Your task to perform on an android device: turn off location history Image 0: 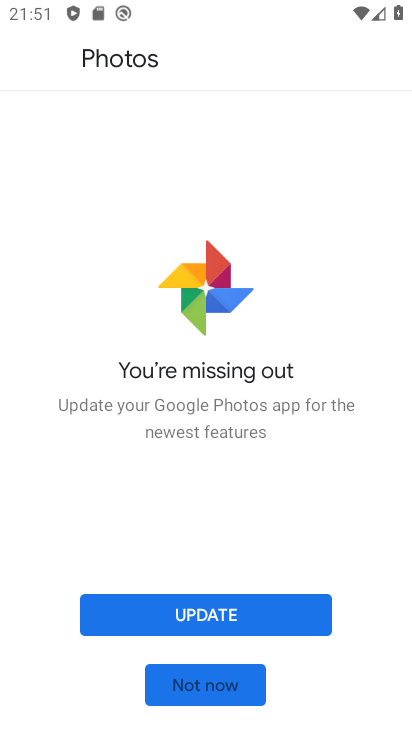
Step 0: press home button
Your task to perform on an android device: turn off location history Image 1: 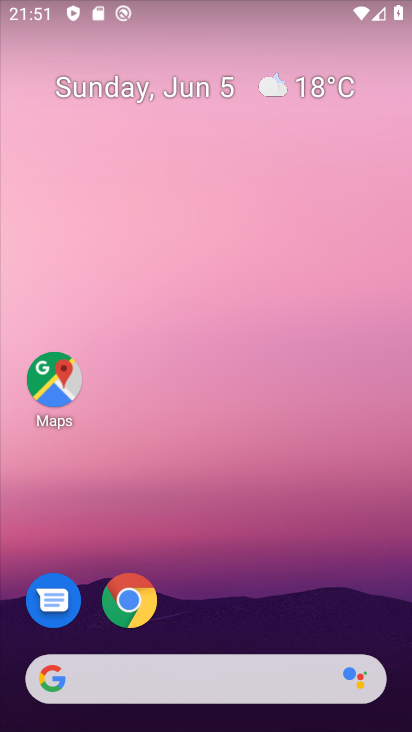
Step 1: drag from (296, 595) to (251, 128)
Your task to perform on an android device: turn off location history Image 2: 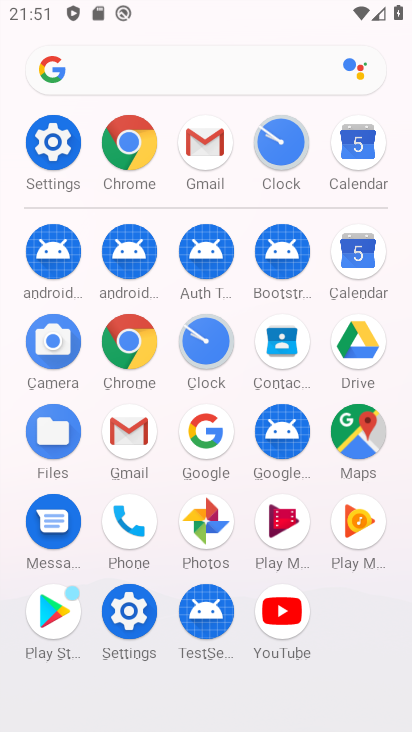
Step 2: click (54, 136)
Your task to perform on an android device: turn off location history Image 3: 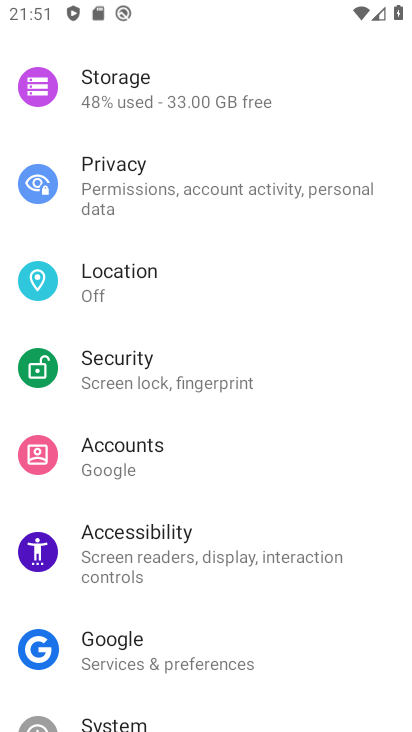
Step 3: click (131, 308)
Your task to perform on an android device: turn off location history Image 4: 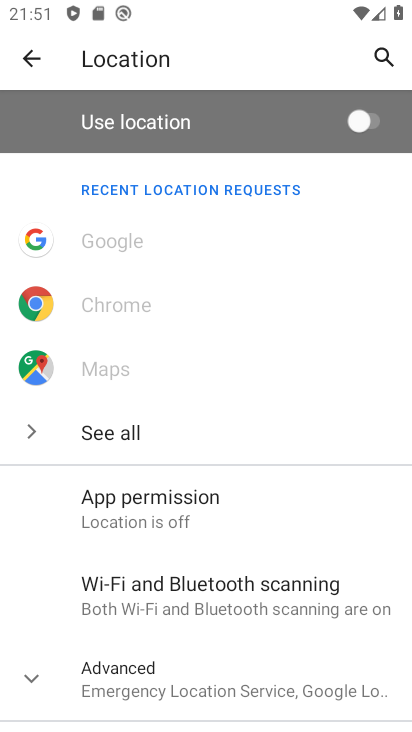
Step 4: click (134, 670)
Your task to perform on an android device: turn off location history Image 5: 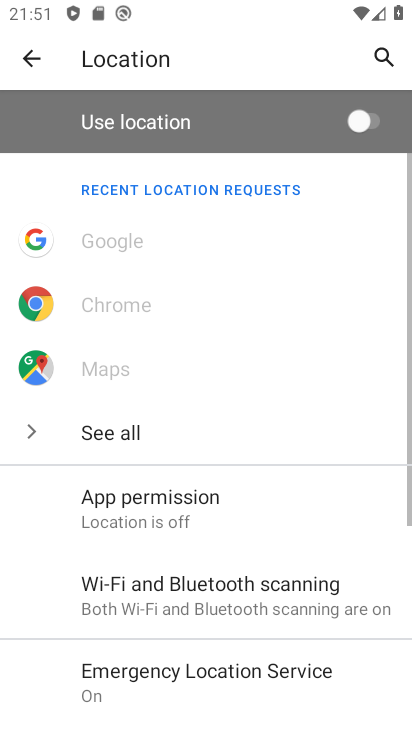
Step 5: drag from (287, 690) to (258, 181)
Your task to perform on an android device: turn off location history Image 6: 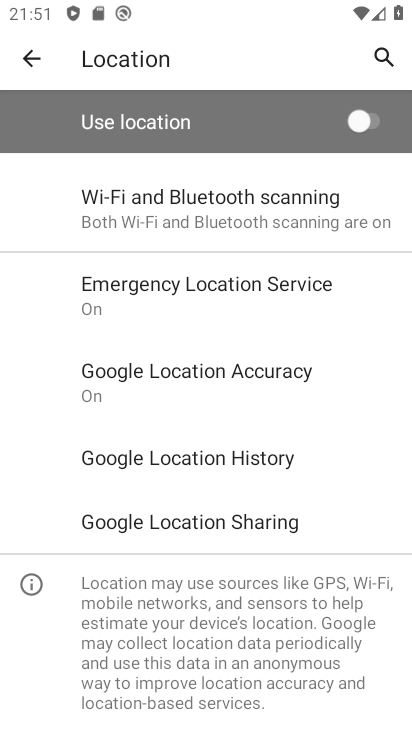
Step 6: click (208, 474)
Your task to perform on an android device: turn off location history Image 7: 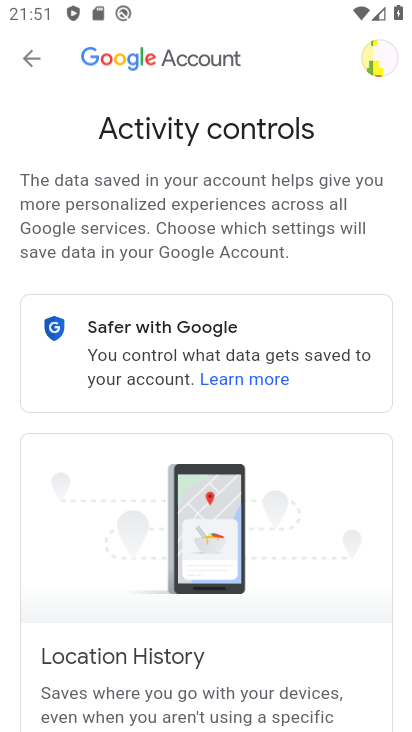
Step 7: drag from (284, 520) to (263, 162)
Your task to perform on an android device: turn off location history Image 8: 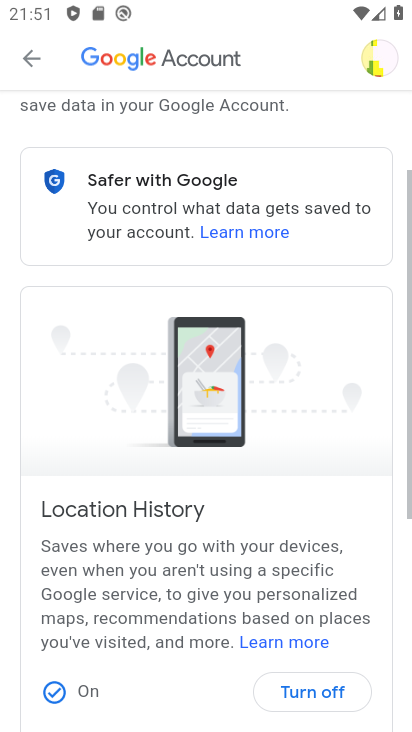
Step 8: click (259, 147)
Your task to perform on an android device: turn off location history Image 9: 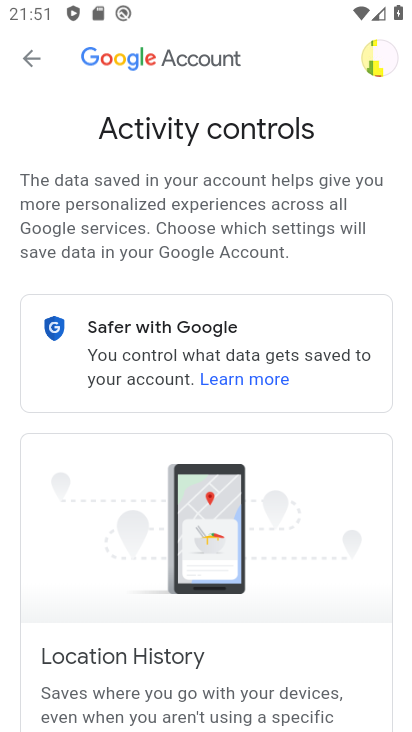
Step 9: click (307, 495)
Your task to perform on an android device: turn off location history Image 10: 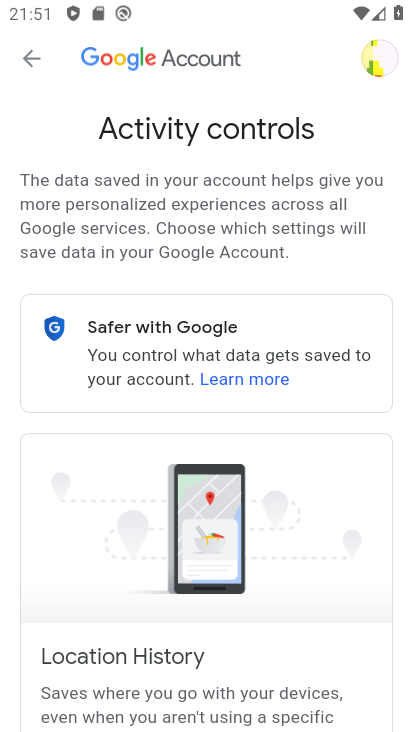
Step 10: drag from (303, 481) to (317, 165)
Your task to perform on an android device: turn off location history Image 11: 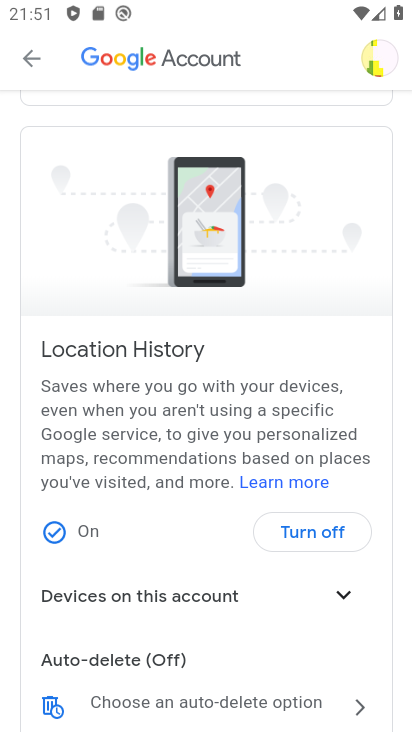
Step 11: click (325, 538)
Your task to perform on an android device: turn off location history Image 12: 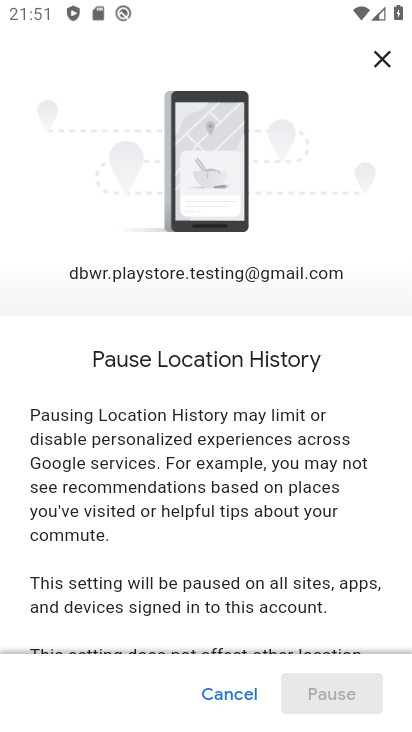
Step 12: drag from (246, 590) to (250, 284)
Your task to perform on an android device: turn off location history Image 13: 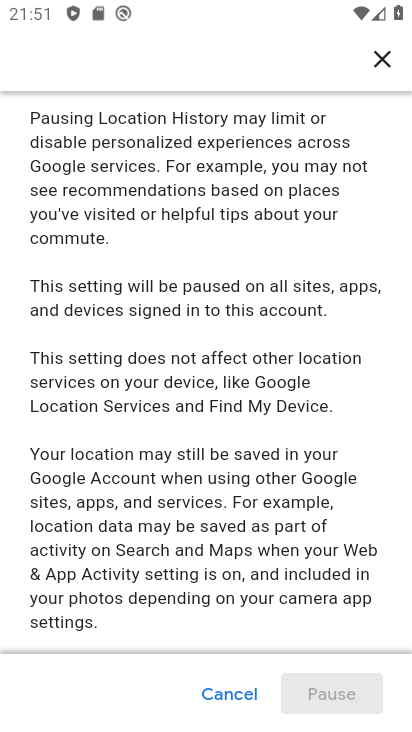
Step 13: drag from (282, 572) to (264, 213)
Your task to perform on an android device: turn off location history Image 14: 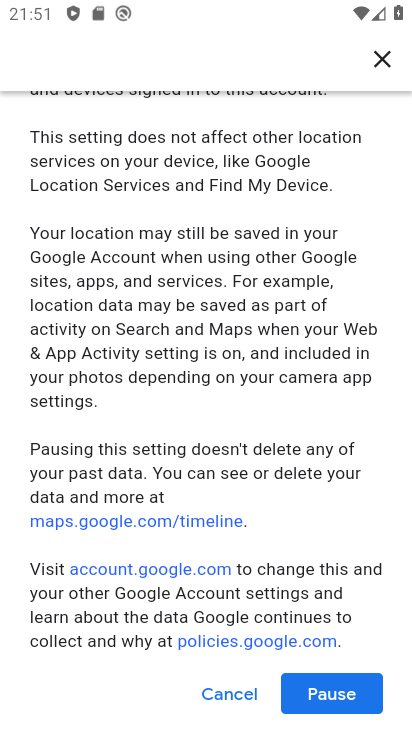
Step 14: click (313, 687)
Your task to perform on an android device: turn off location history Image 15: 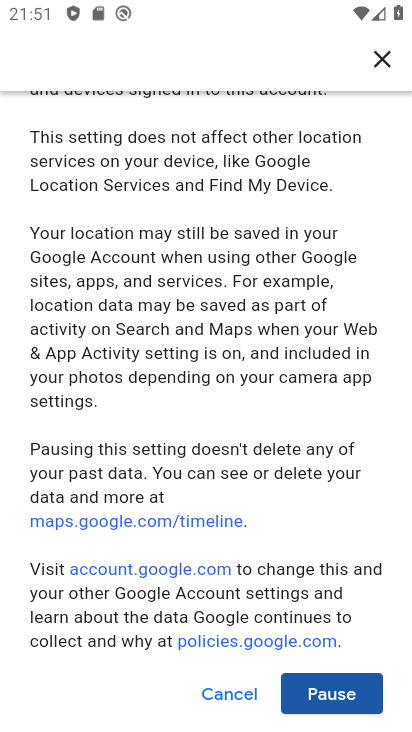
Step 15: click (340, 703)
Your task to perform on an android device: turn off location history Image 16: 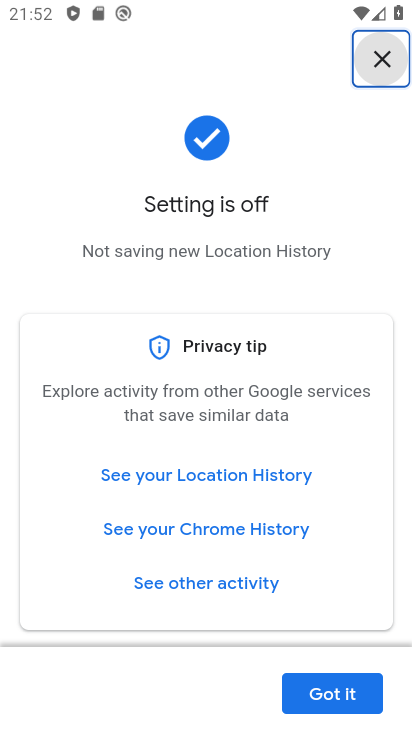
Step 16: click (323, 710)
Your task to perform on an android device: turn off location history Image 17: 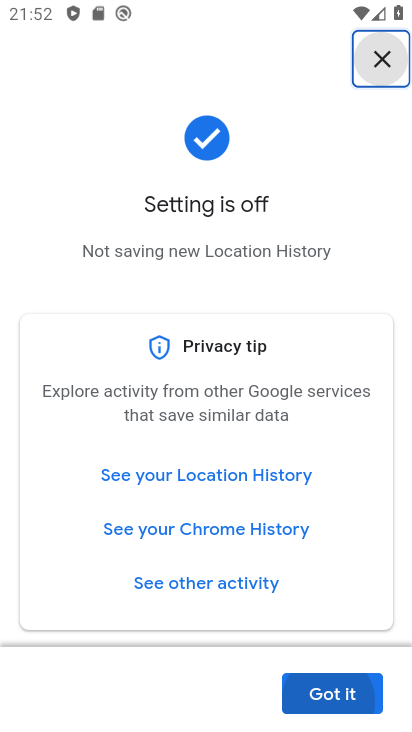
Step 17: click (321, 699)
Your task to perform on an android device: turn off location history Image 18: 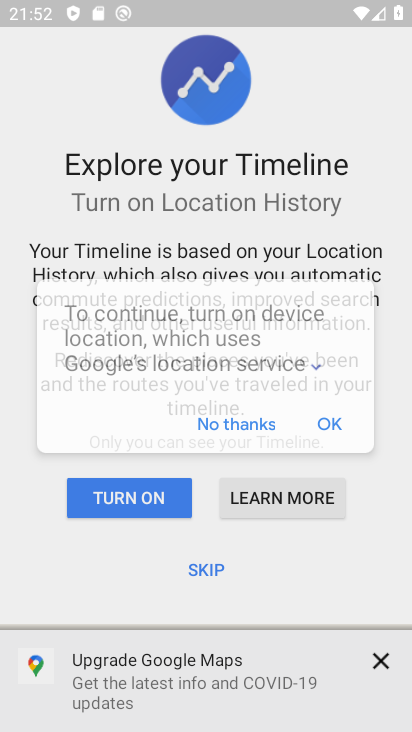
Step 18: task complete